Your task to perform on an android device: toggle sleep mode Image 0: 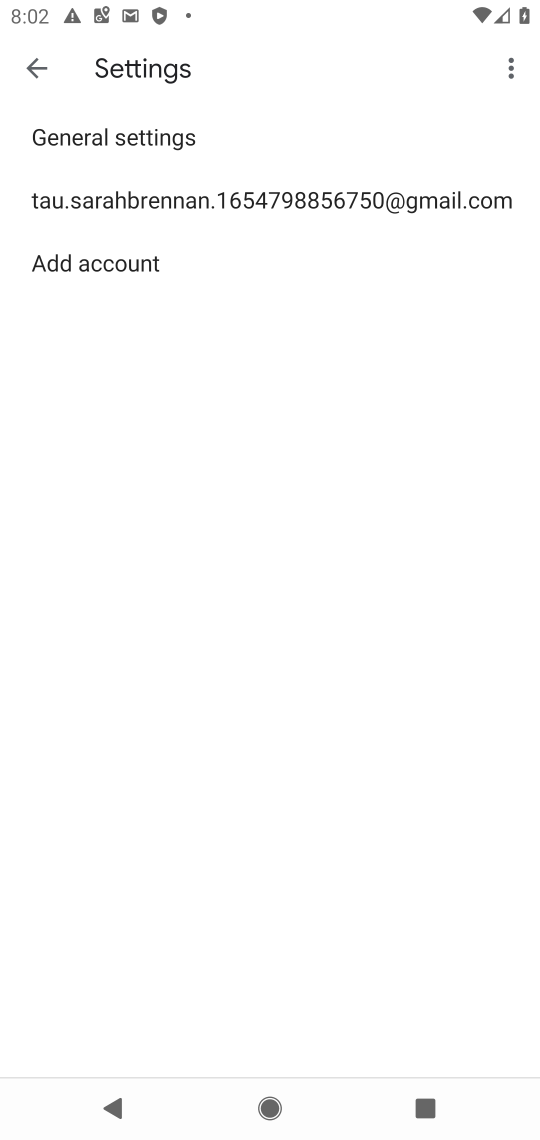
Step 0: press home button
Your task to perform on an android device: toggle sleep mode Image 1: 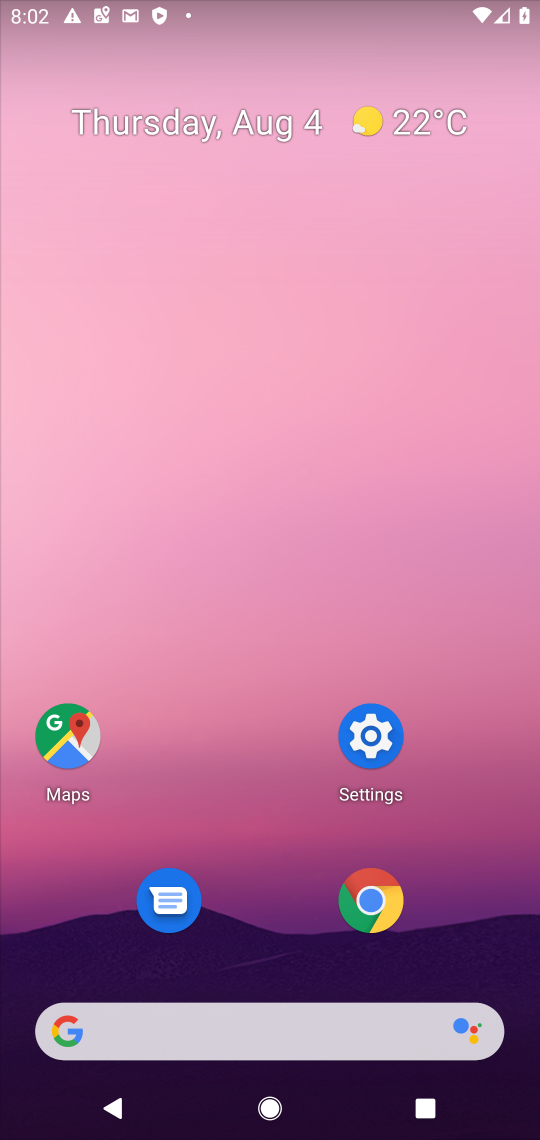
Step 1: click (370, 742)
Your task to perform on an android device: toggle sleep mode Image 2: 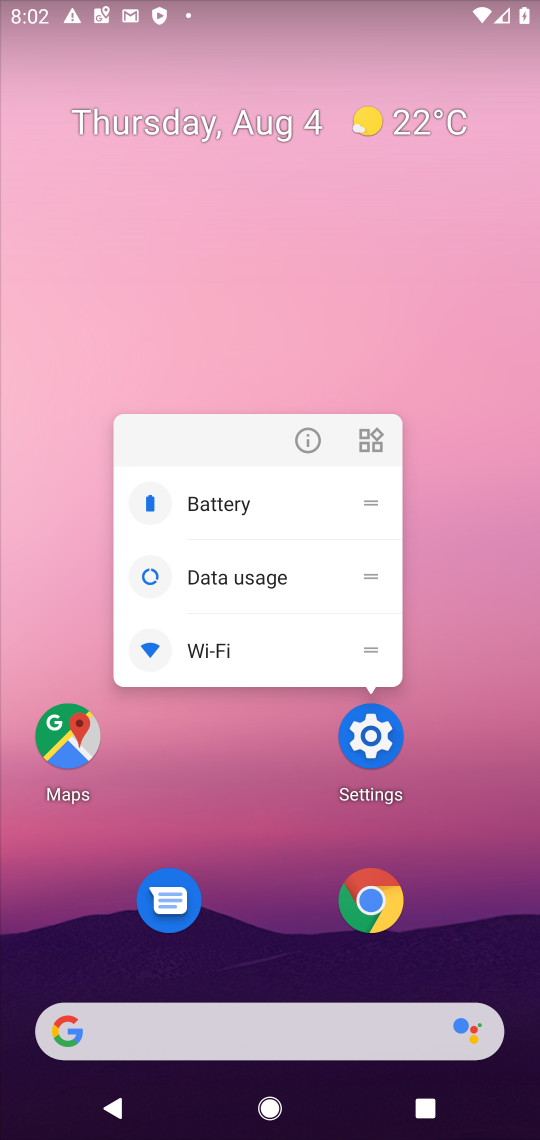
Step 2: click (370, 740)
Your task to perform on an android device: toggle sleep mode Image 3: 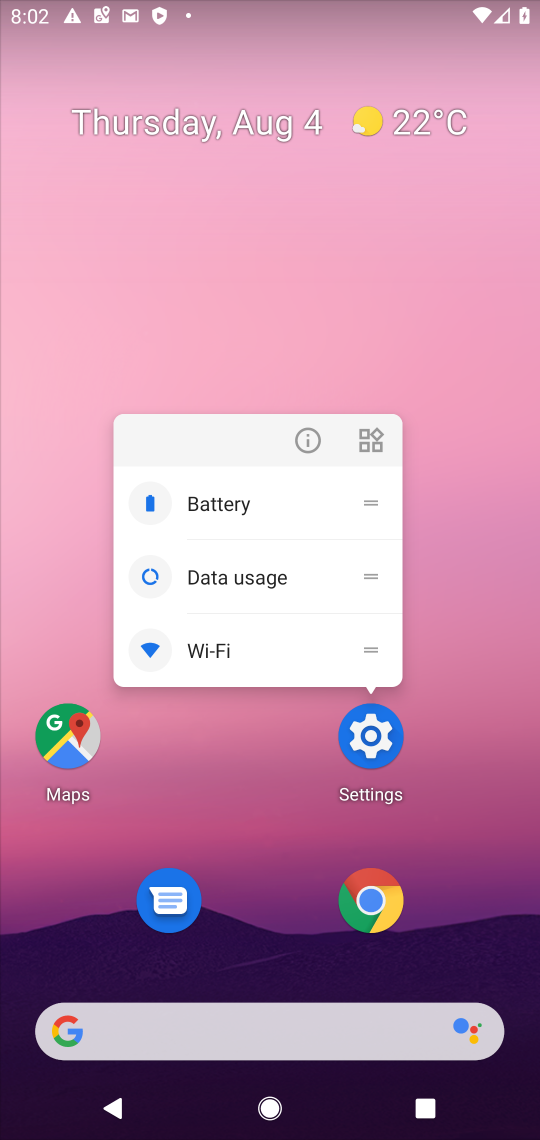
Step 3: click (390, 719)
Your task to perform on an android device: toggle sleep mode Image 4: 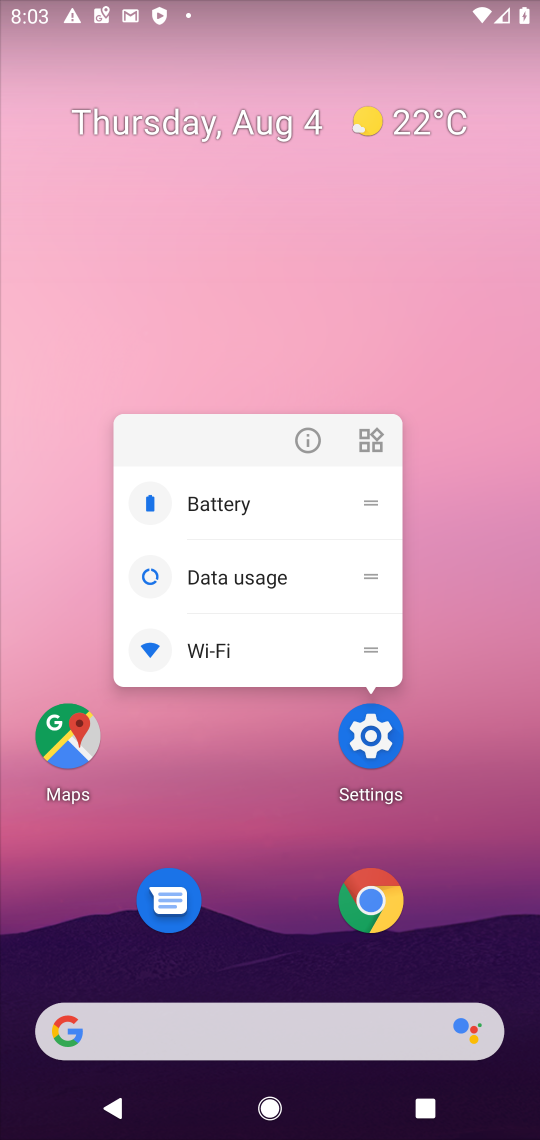
Step 4: click (376, 751)
Your task to perform on an android device: toggle sleep mode Image 5: 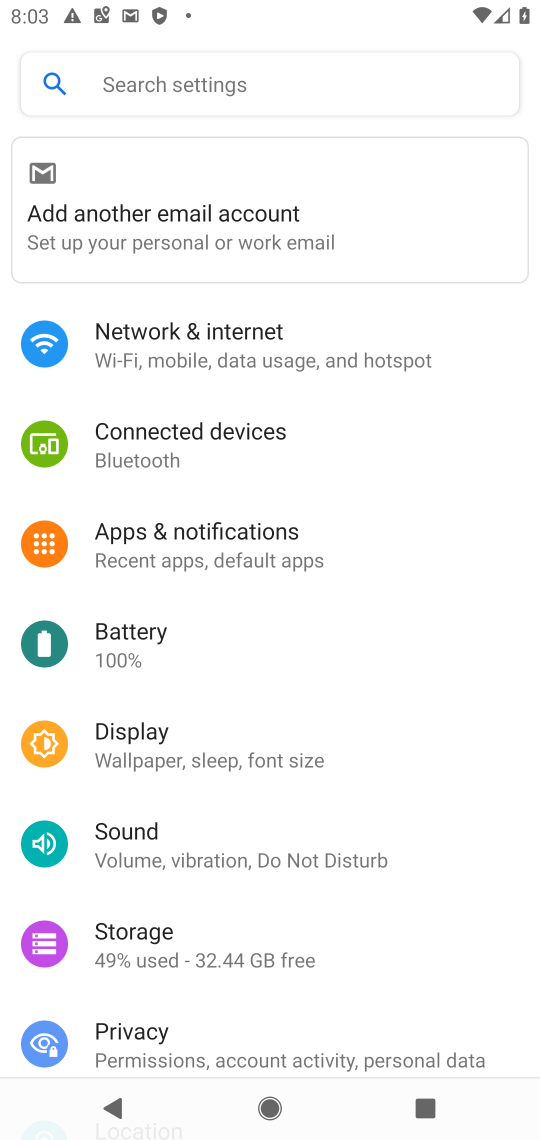
Step 5: click (198, 738)
Your task to perform on an android device: toggle sleep mode Image 6: 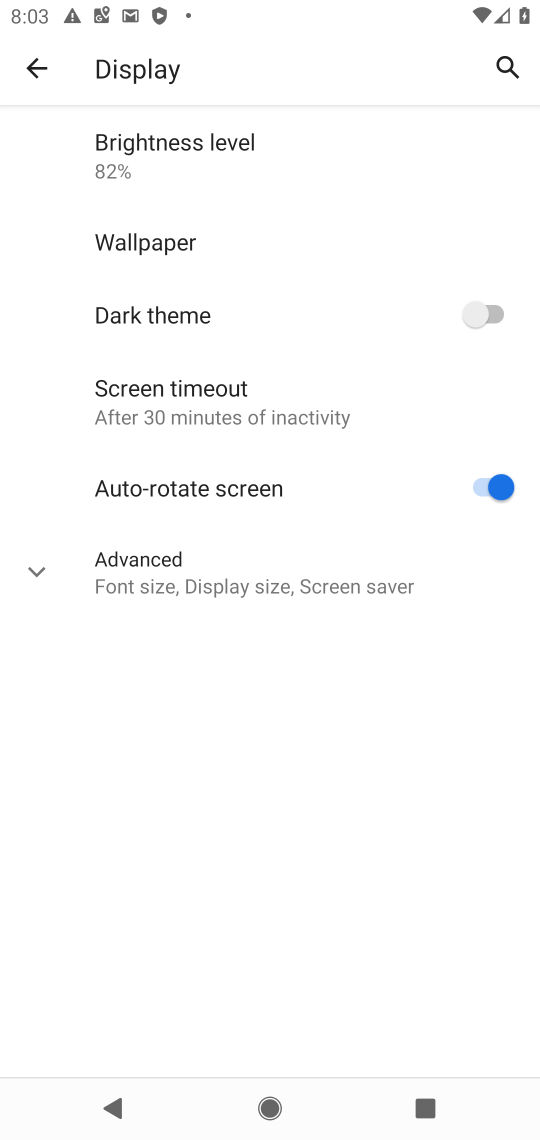
Step 6: task complete